Your task to perform on an android device: turn on notifications settings in the gmail app Image 0: 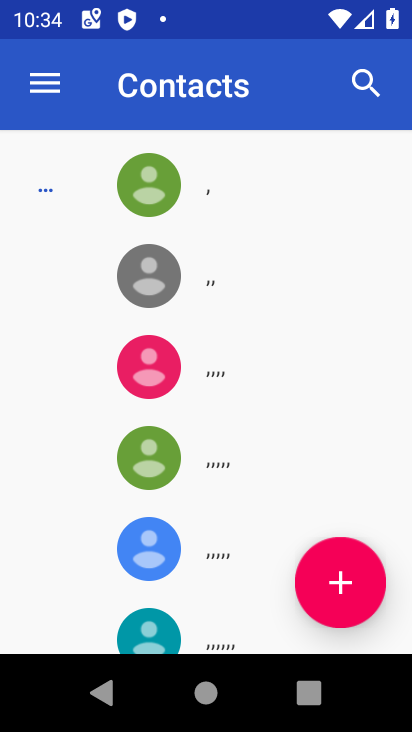
Step 0: press home button
Your task to perform on an android device: turn on notifications settings in the gmail app Image 1: 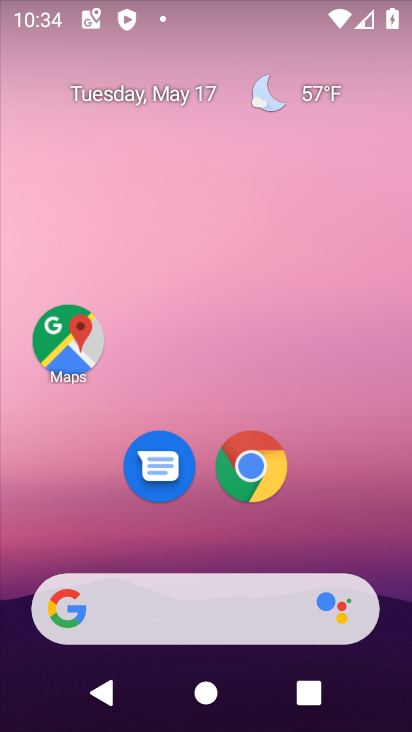
Step 1: drag from (195, 543) to (394, 335)
Your task to perform on an android device: turn on notifications settings in the gmail app Image 2: 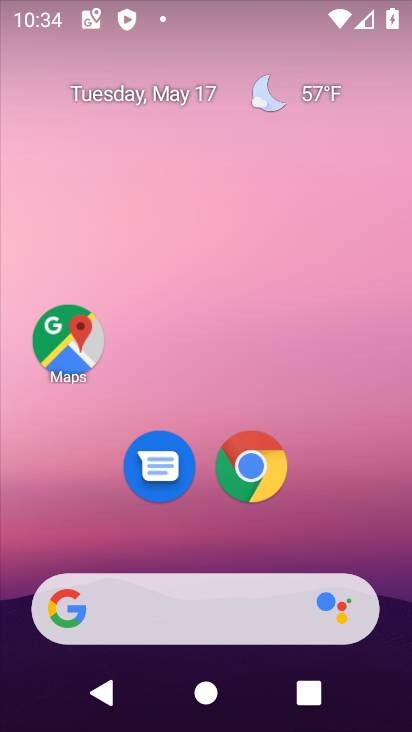
Step 2: drag from (282, 551) to (282, 12)
Your task to perform on an android device: turn on notifications settings in the gmail app Image 3: 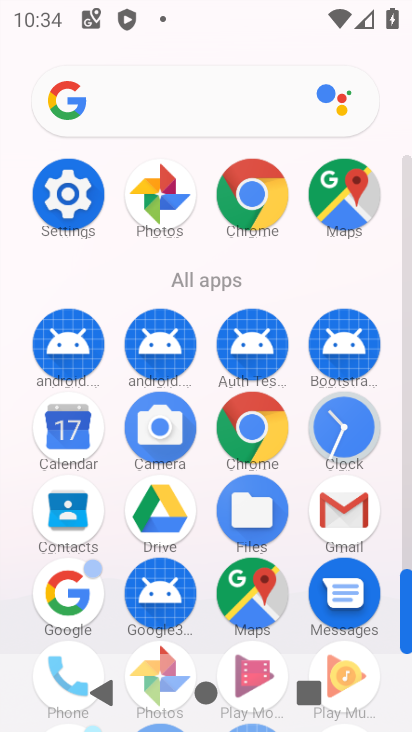
Step 3: click (355, 499)
Your task to perform on an android device: turn on notifications settings in the gmail app Image 4: 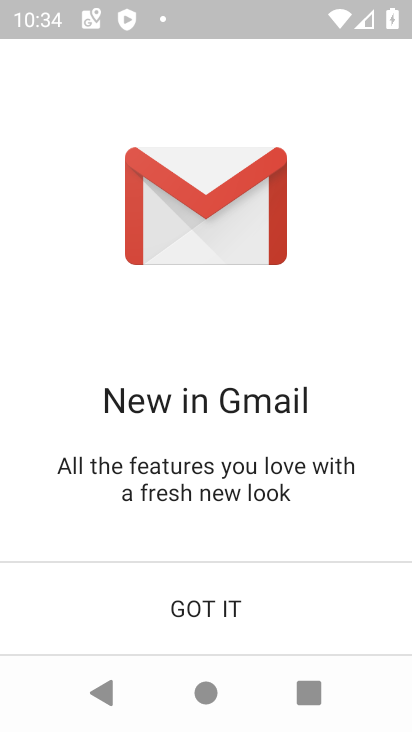
Step 4: click (230, 631)
Your task to perform on an android device: turn on notifications settings in the gmail app Image 5: 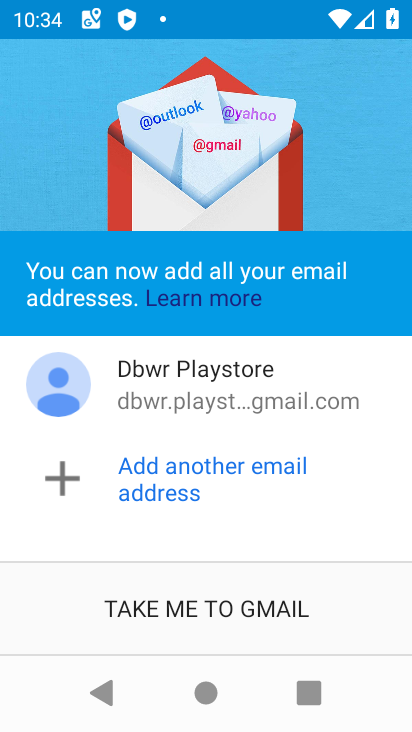
Step 5: click (228, 629)
Your task to perform on an android device: turn on notifications settings in the gmail app Image 6: 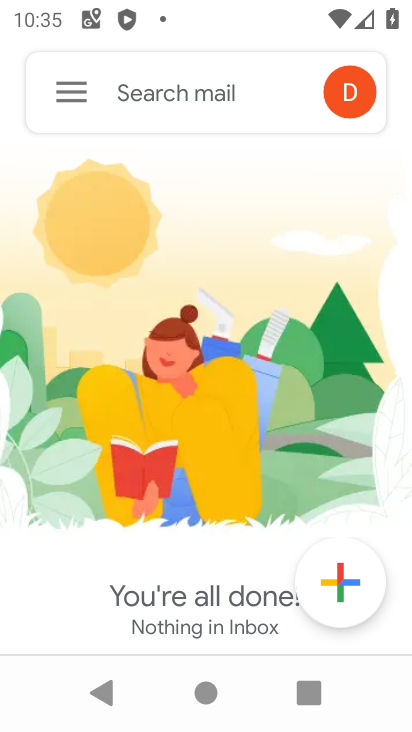
Step 6: click (68, 93)
Your task to perform on an android device: turn on notifications settings in the gmail app Image 7: 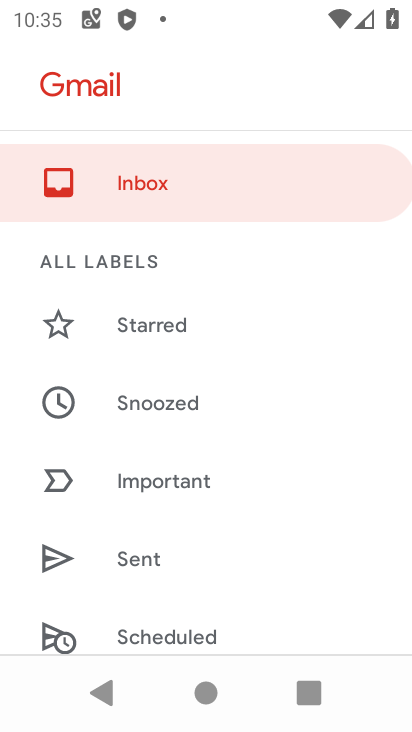
Step 7: drag from (143, 574) to (147, 64)
Your task to perform on an android device: turn on notifications settings in the gmail app Image 8: 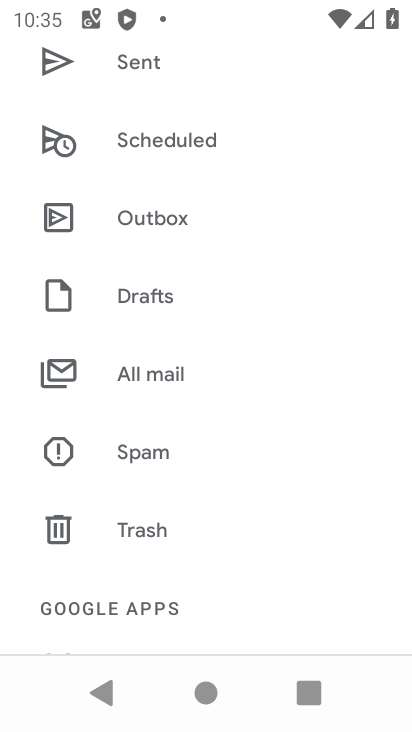
Step 8: drag from (219, 542) to (220, 93)
Your task to perform on an android device: turn on notifications settings in the gmail app Image 9: 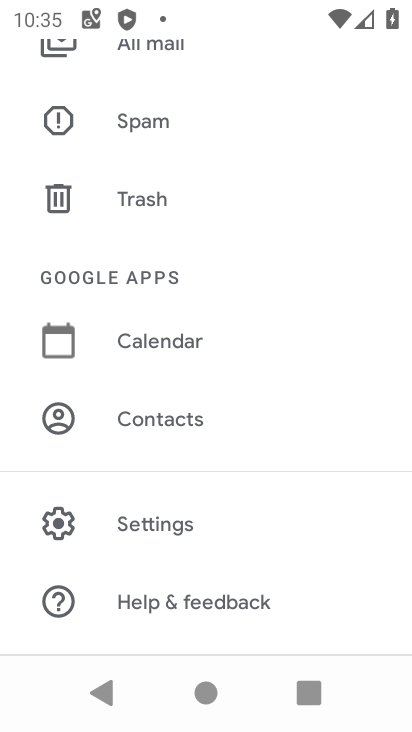
Step 9: click (178, 515)
Your task to perform on an android device: turn on notifications settings in the gmail app Image 10: 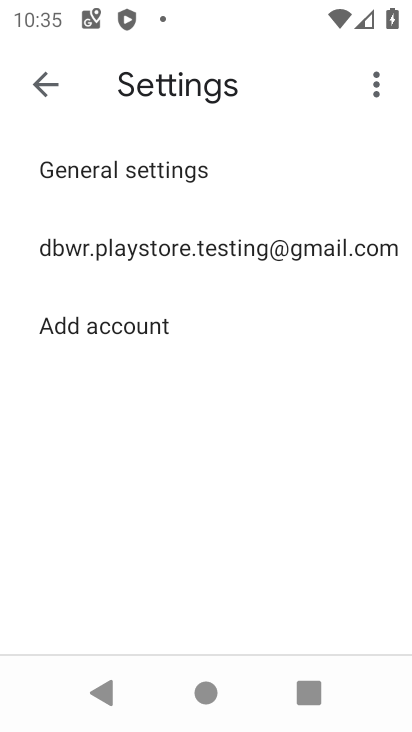
Step 10: click (131, 184)
Your task to perform on an android device: turn on notifications settings in the gmail app Image 11: 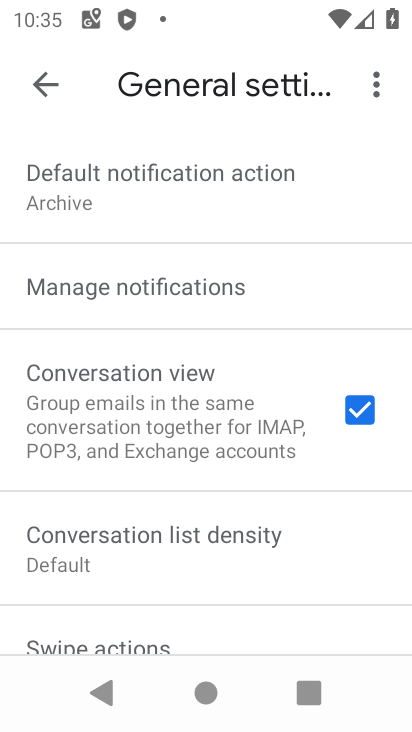
Step 11: click (44, 95)
Your task to perform on an android device: turn on notifications settings in the gmail app Image 12: 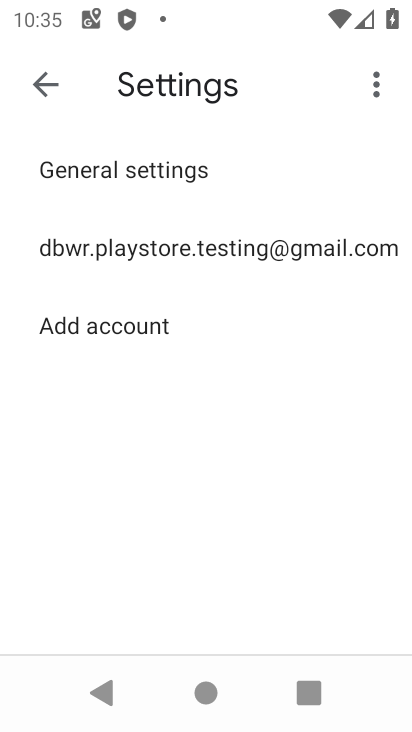
Step 12: click (104, 239)
Your task to perform on an android device: turn on notifications settings in the gmail app Image 13: 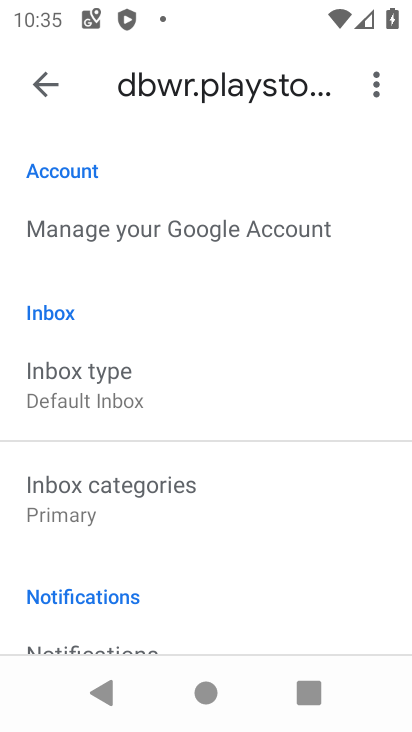
Step 13: drag from (165, 462) to (151, 118)
Your task to perform on an android device: turn on notifications settings in the gmail app Image 14: 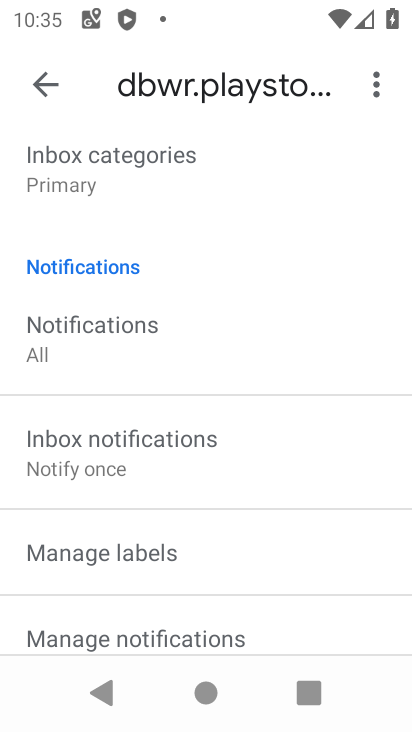
Step 14: click (34, 77)
Your task to perform on an android device: turn on notifications settings in the gmail app Image 15: 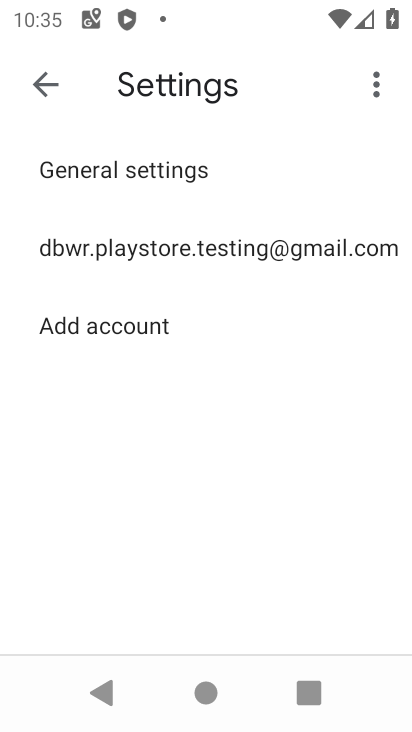
Step 15: click (121, 173)
Your task to perform on an android device: turn on notifications settings in the gmail app Image 16: 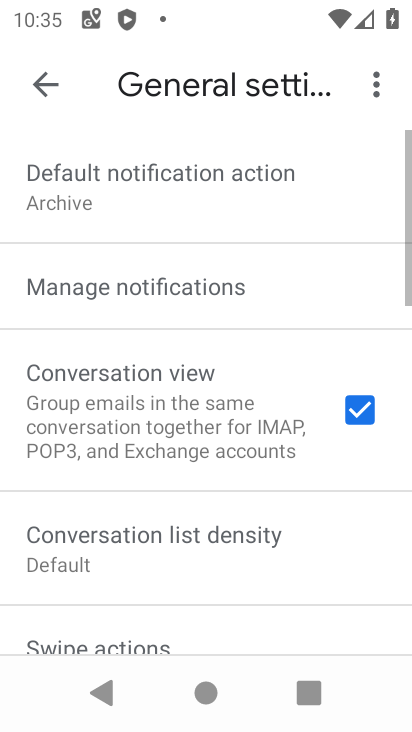
Step 16: click (282, 275)
Your task to perform on an android device: turn on notifications settings in the gmail app Image 17: 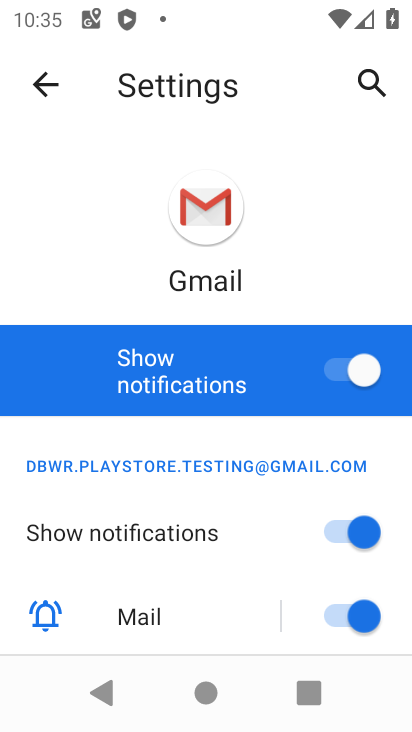
Step 17: task complete